Your task to perform on an android device: open app "DoorDash - Dasher" Image 0: 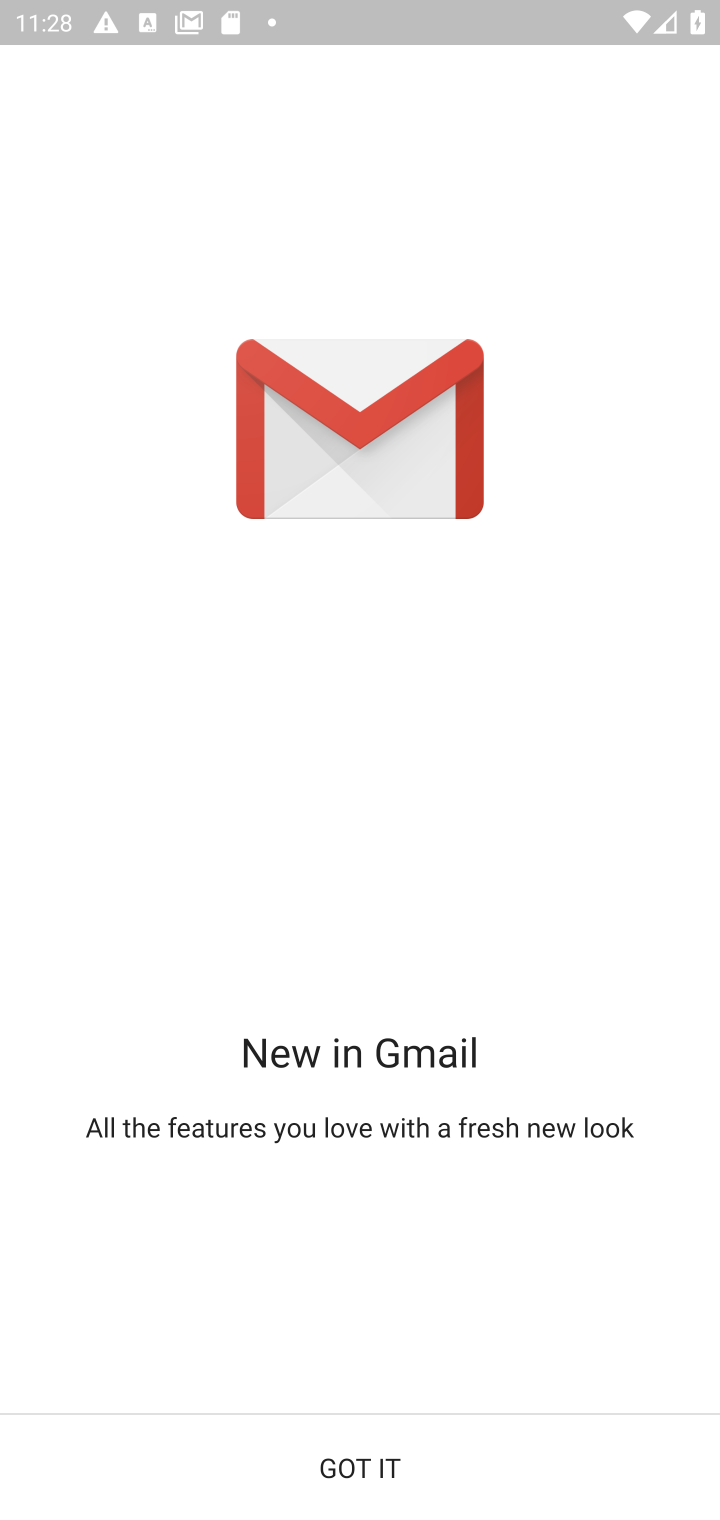
Step 0: press home button
Your task to perform on an android device: open app "DoorDash - Dasher" Image 1: 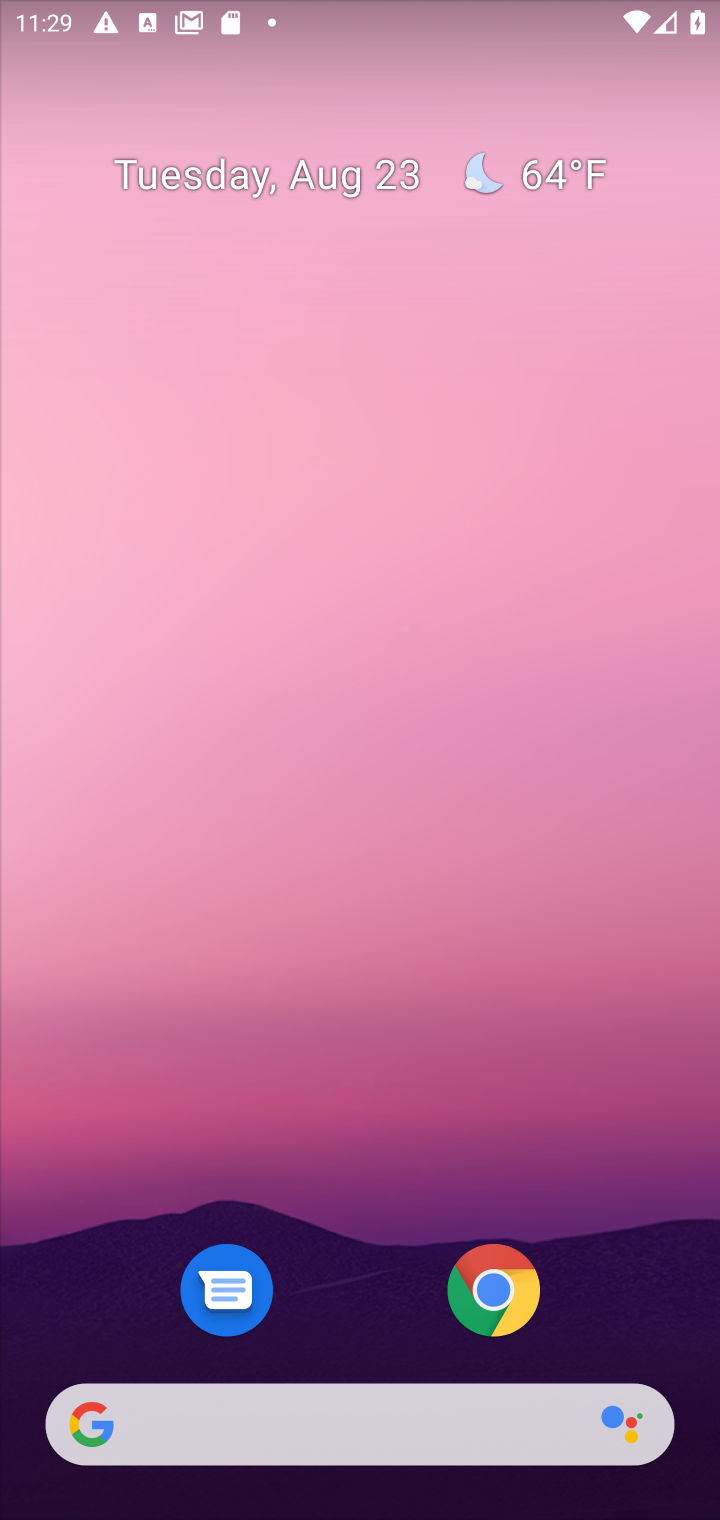
Step 1: drag from (355, 1332) to (240, 9)
Your task to perform on an android device: open app "DoorDash - Dasher" Image 2: 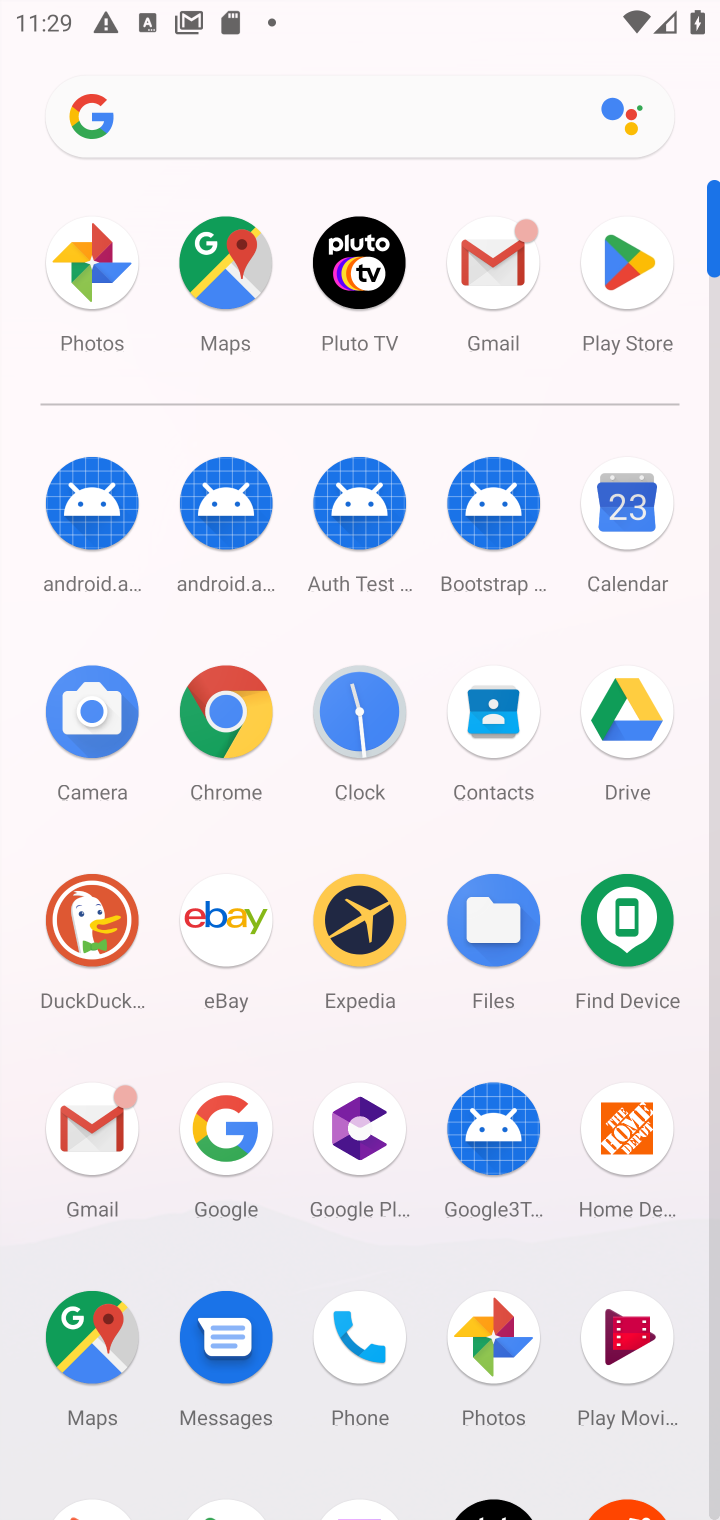
Step 2: click (625, 280)
Your task to perform on an android device: open app "DoorDash - Dasher" Image 3: 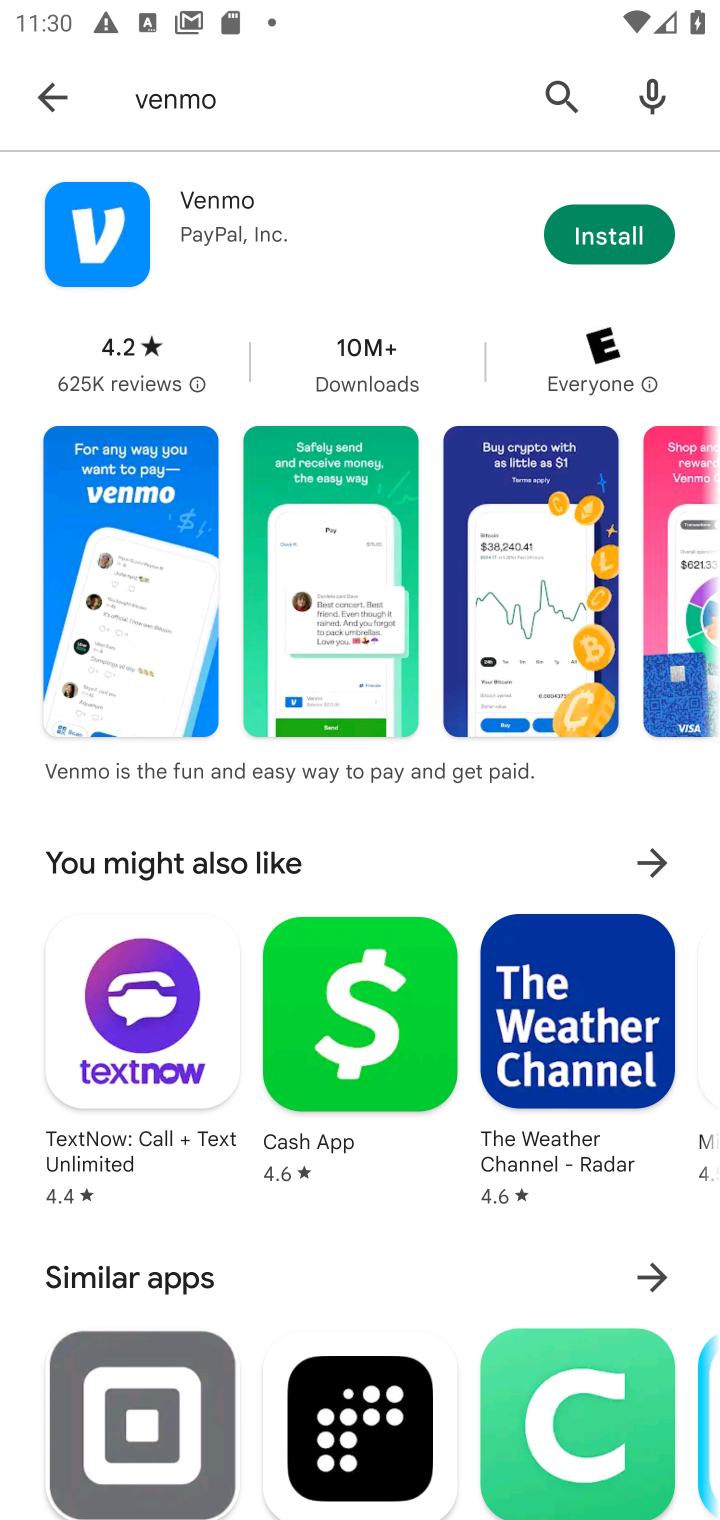
Step 3: click (552, 73)
Your task to perform on an android device: open app "DoorDash - Dasher" Image 4: 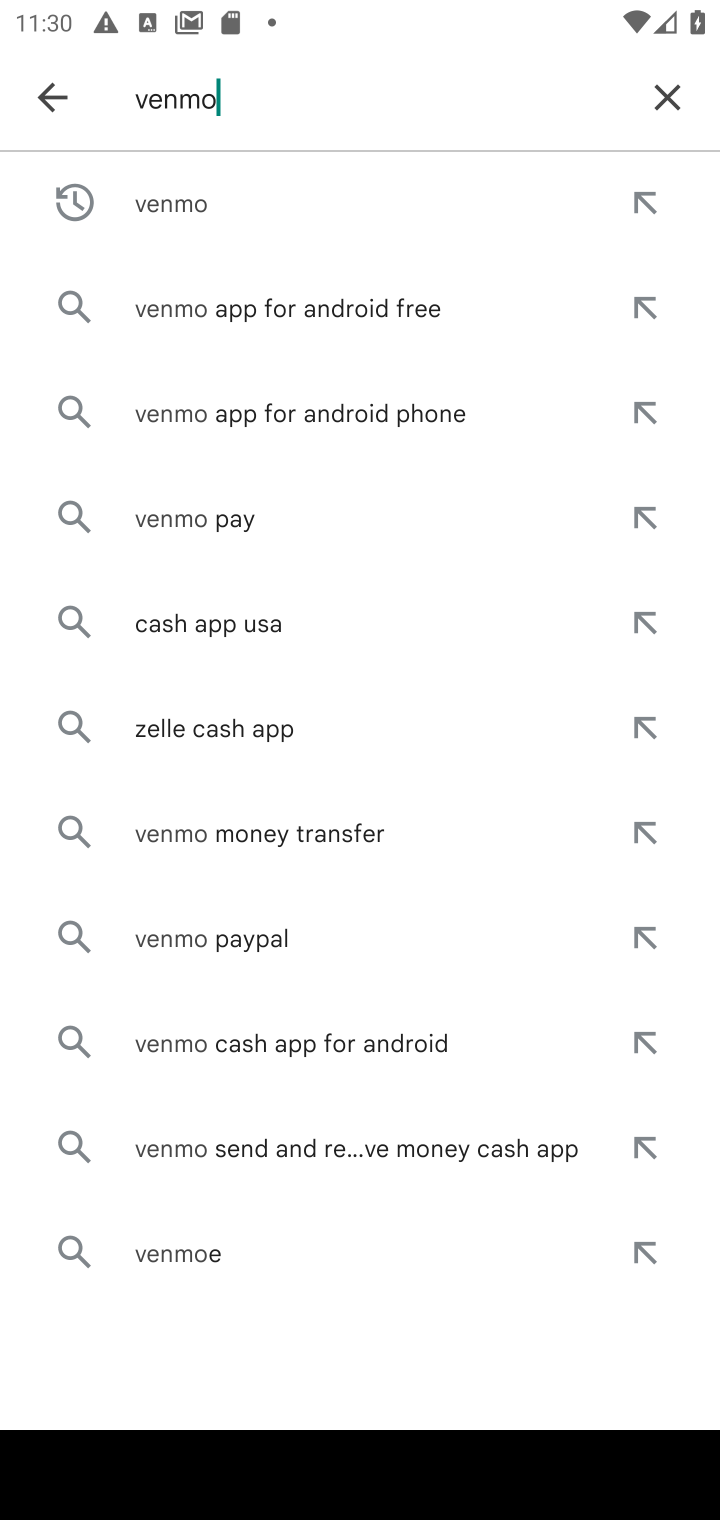
Step 4: click (162, 200)
Your task to perform on an android device: open app "DoorDash - Dasher" Image 5: 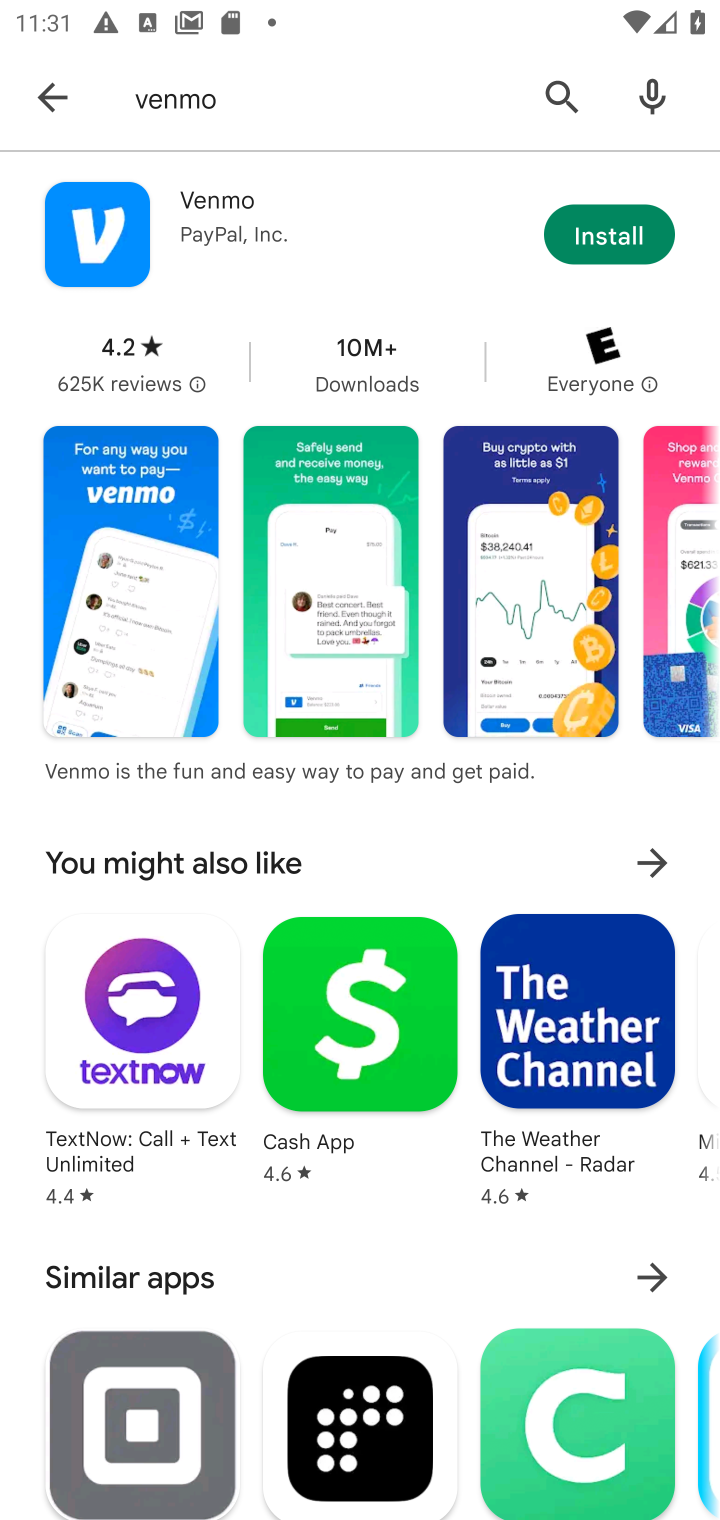
Step 5: click (569, 84)
Your task to perform on an android device: open app "DoorDash - Dasher" Image 6: 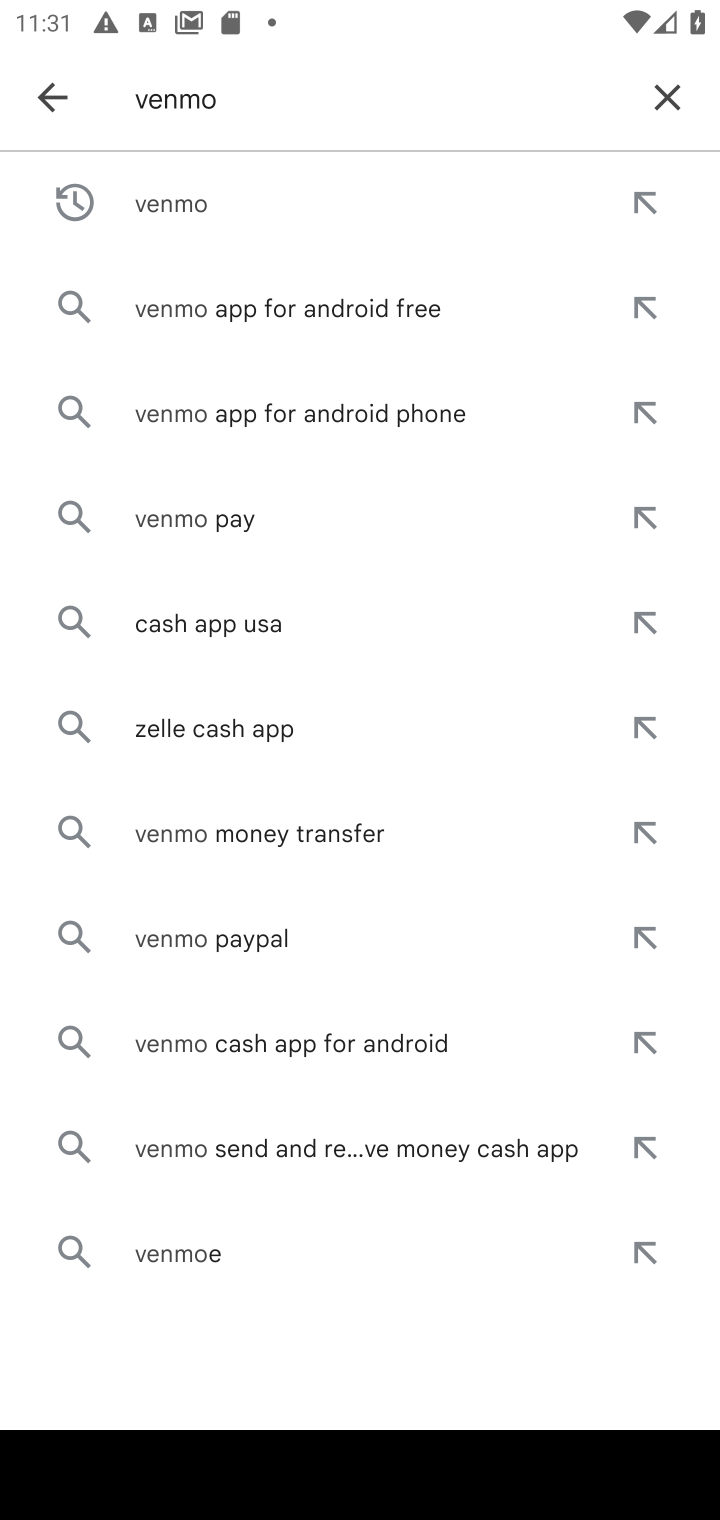
Step 6: click (652, 100)
Your task to perform on an android device: open app "DoorDash - Dasher" Image 7: 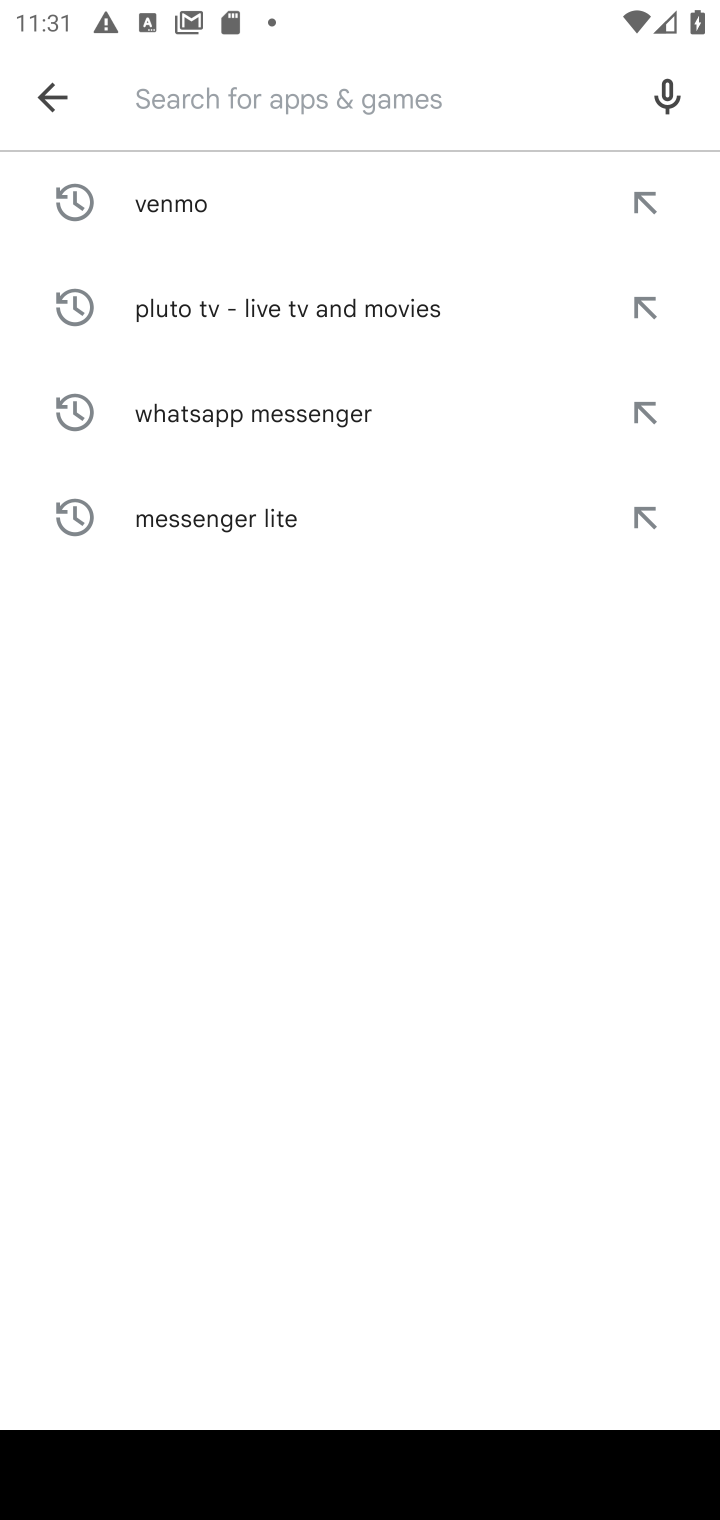
Step 7: type "DoorDash - Dasher"
Your task to perform on an android device: open app "DoorDash - Dasher" Image 8: 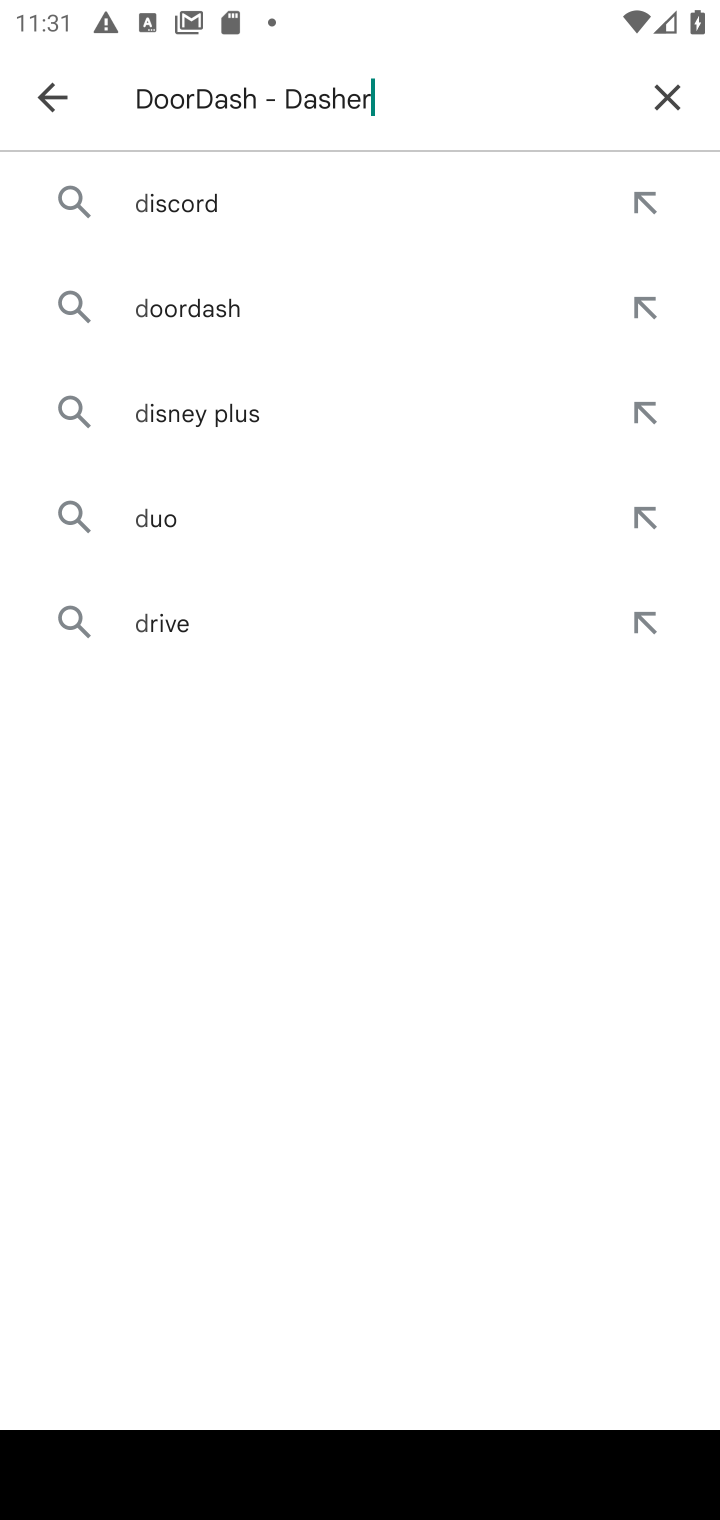
Step 8: type ""
Your task to perform on an android device: open app "DoorDash - Dasher" Image 9: 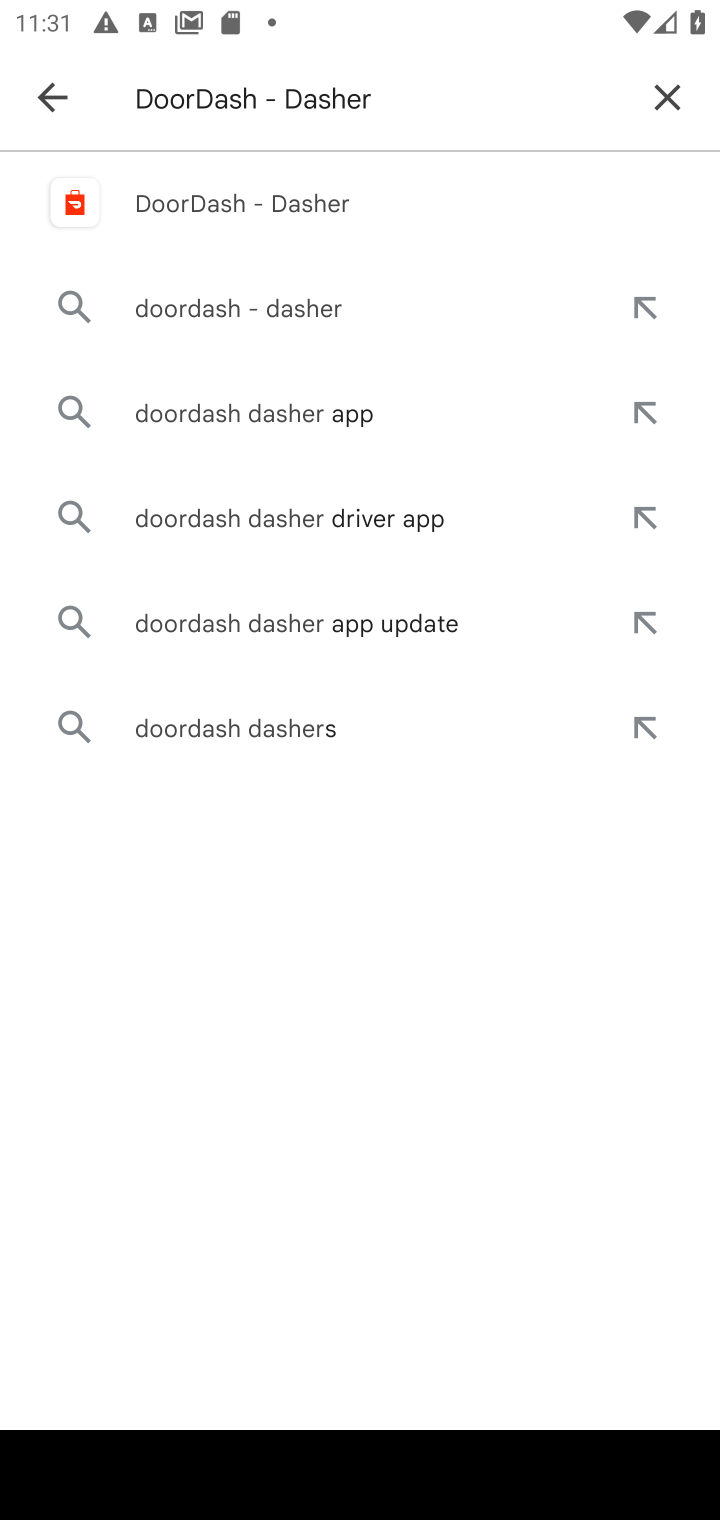
Step 9: click (186, 205)
Your task to perform on an android device: open app "DoorDash - Dasher" Image 10: 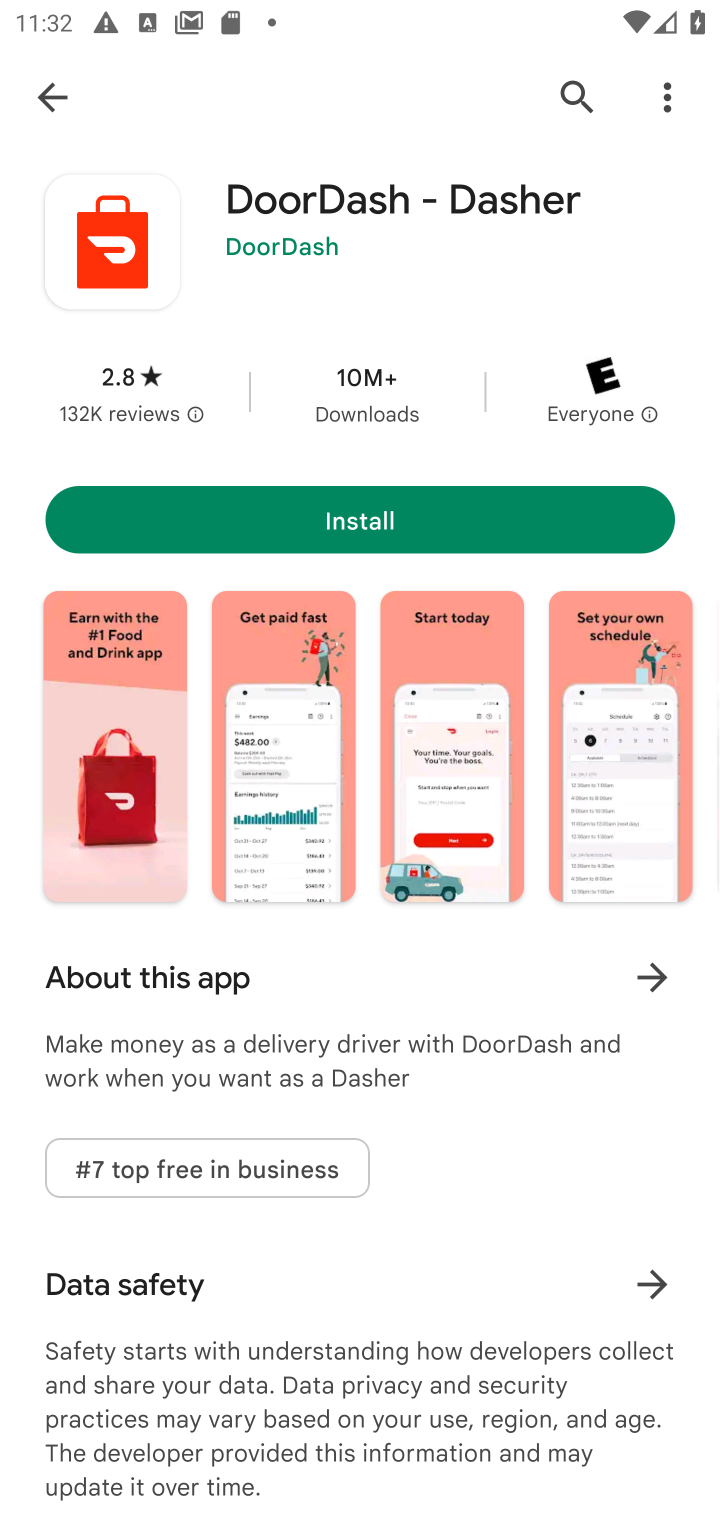
Step 10: task complete